Your task to perform on an android device: toggle show notifications on the lock screen Image 0: 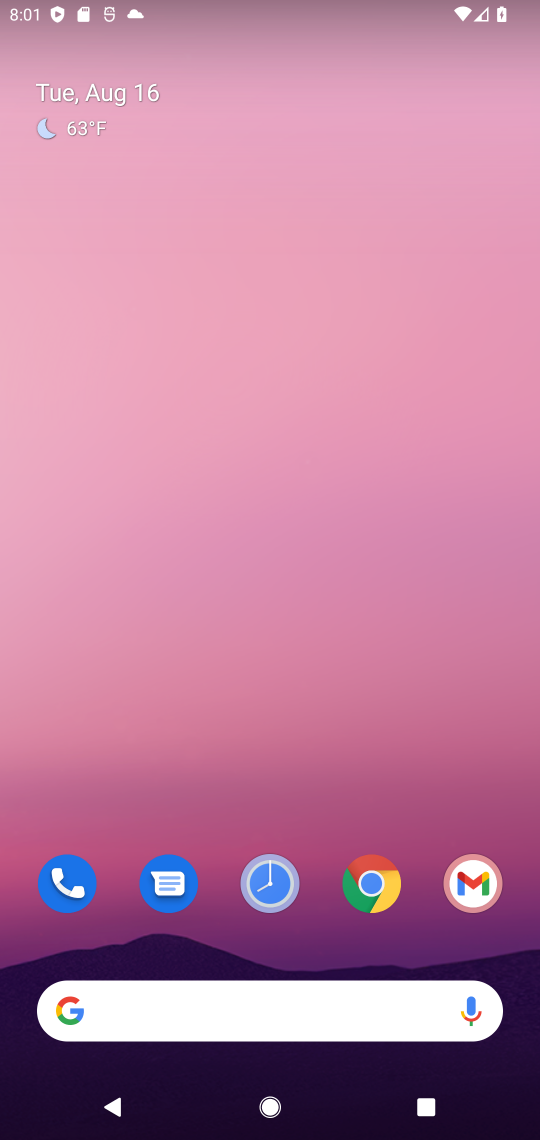
Step 0: drag from (332, 847) to (280, 307)
Your task to perform on an android device: toggle show notifications on the lock screen Image 1: 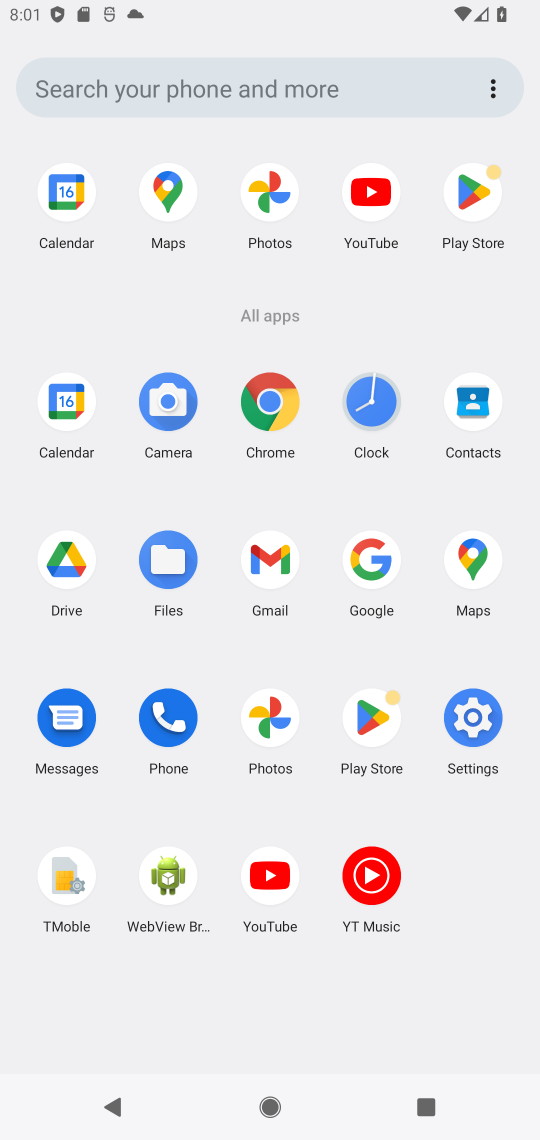
Step 1: click (480, 732)
Your task to perform on an android device: toggle show notifications on the lock screen Image 2: 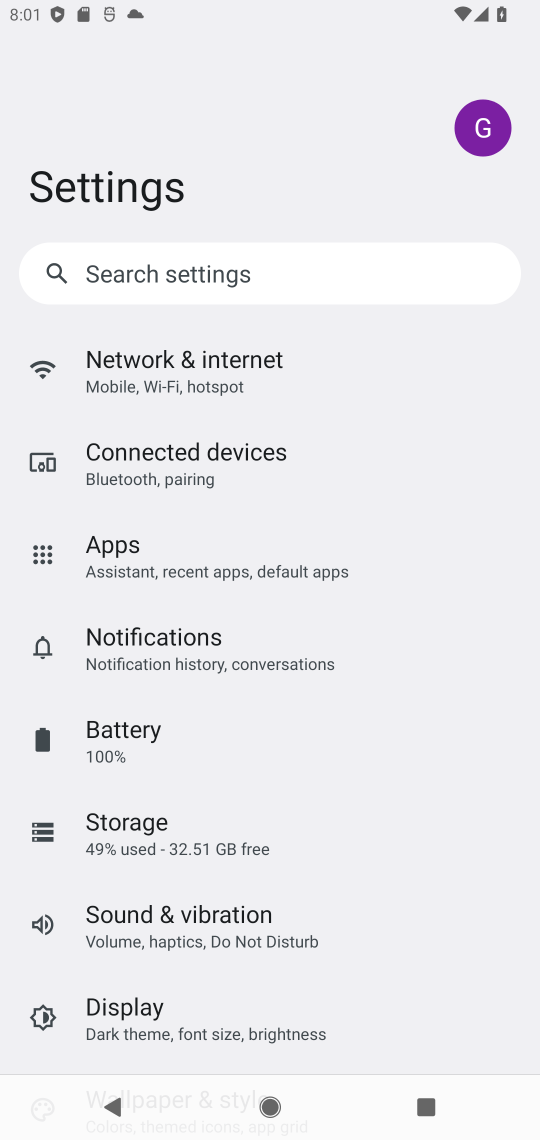
Step 2: click (171, 659)
Your task to perform on an android device: toggle show notifications on the lock screen Image 3: 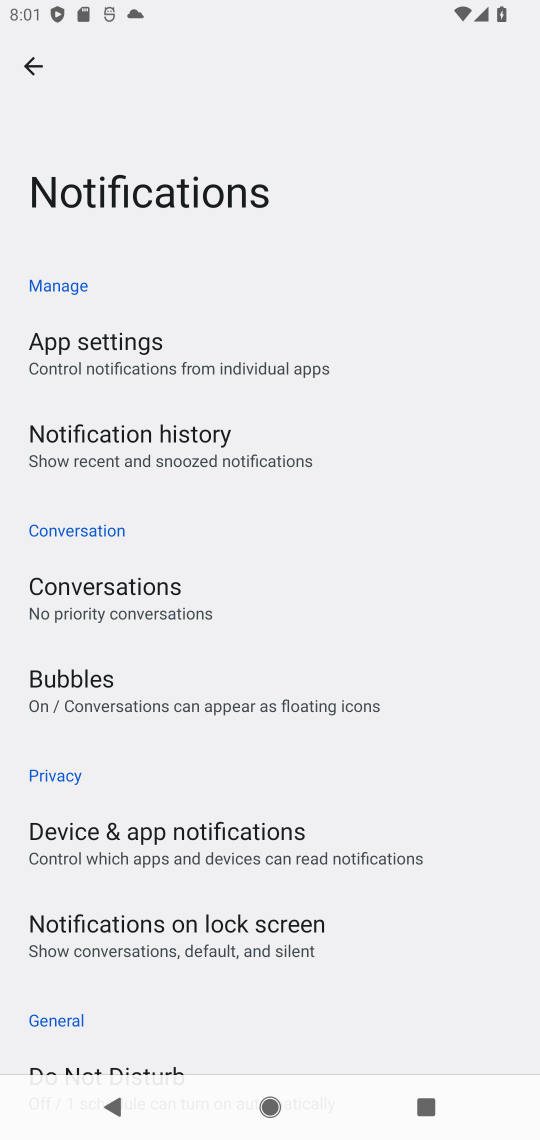
Step 3: click (196, 926)
Your task to perform on an android device: toggle show notifications on the lock screen Image 4: 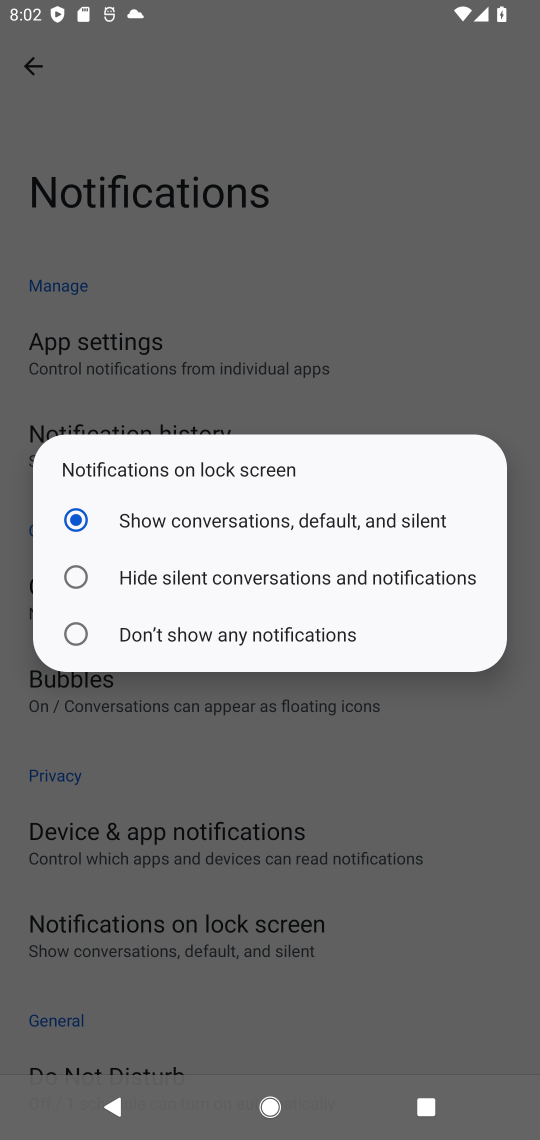
Step 4: click (73, 637)
Your task to perform on an android device: toggle show notifications on the lock screen Image 5: 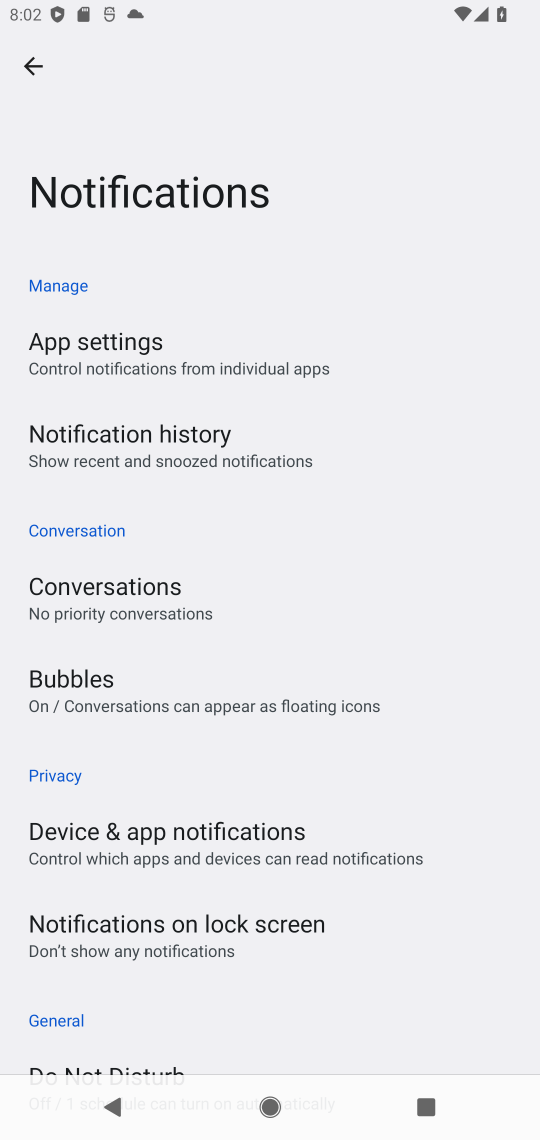
Step 5: task complete